Your task to perform on an android device: change your default location settings in chrome Image 0: 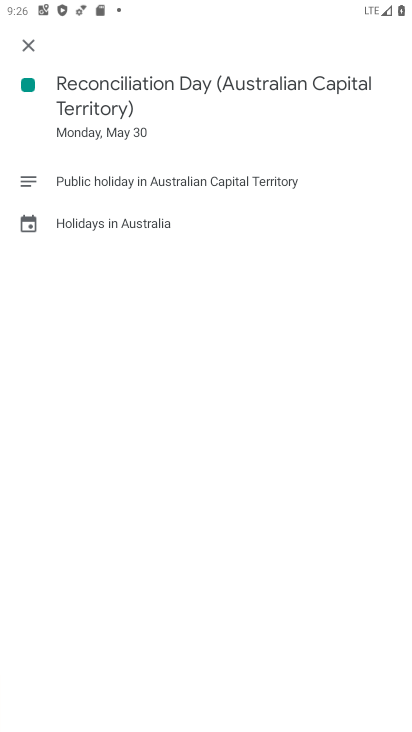
Step 0: press back button
Your task to perform on an android device: change your default location settings in chrome Image 1: 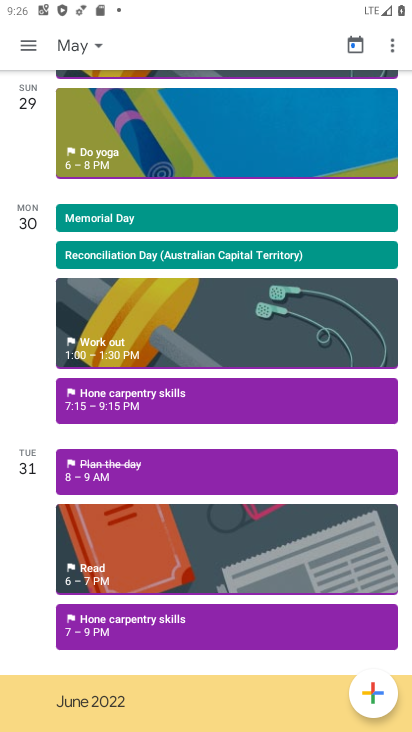
Step 1: press back button
Your task to perform on an android device: change your default location settings in chrome Image 2: 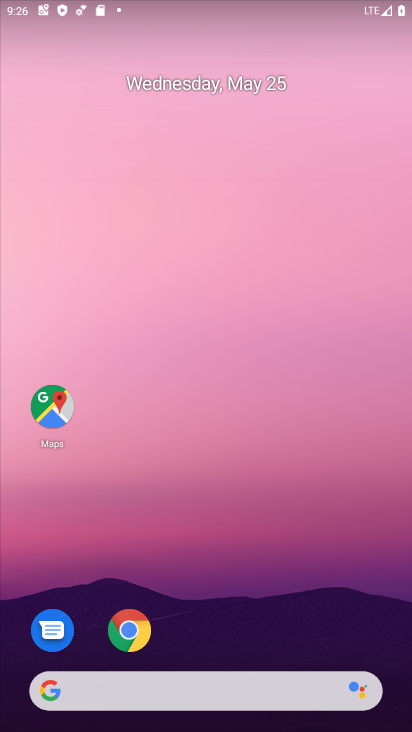
Step 2: click (129, 639)
Your task to perform on an android device: change your default location settings in chrome Image 3: 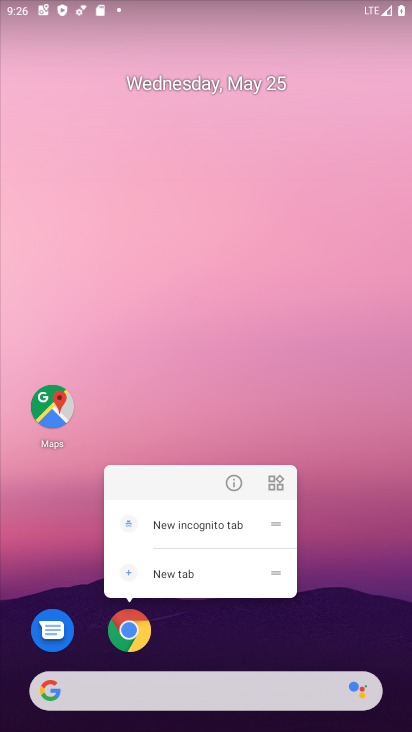
Step 3: click (126, 638)
Your task to perform on an android device: change your default location settings in chrome Image 4: 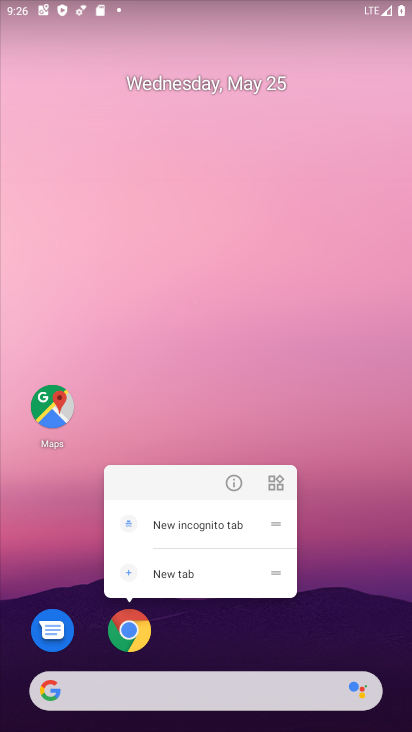
Step 4: click (129, 625)
Your task to perform on an android device: change your default location settings in chrome Image 5: 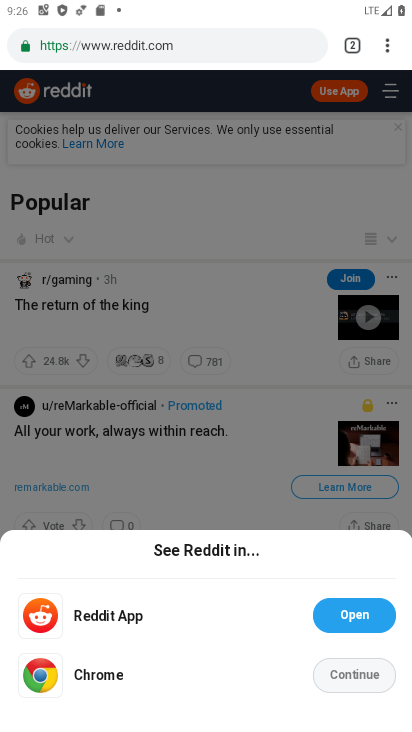
Step 5: drag from (389, 48) to (243, 510)
Your task to perform on an android device: change your default location settings in chrome Image 6: 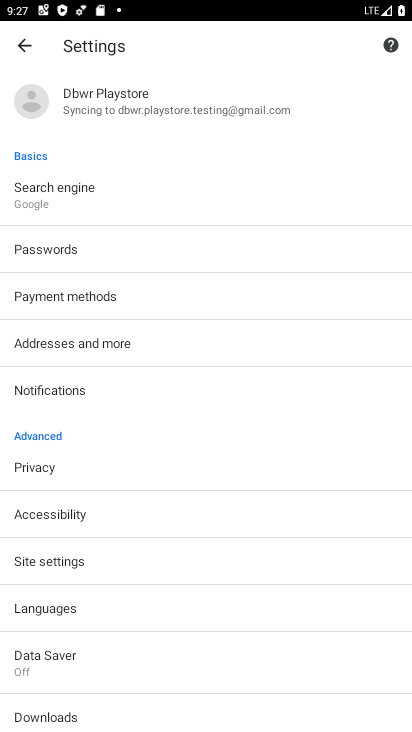
Step 6: click (67, 558)
Your task to perform on an android device: change your default location settings in chrome Image 7: 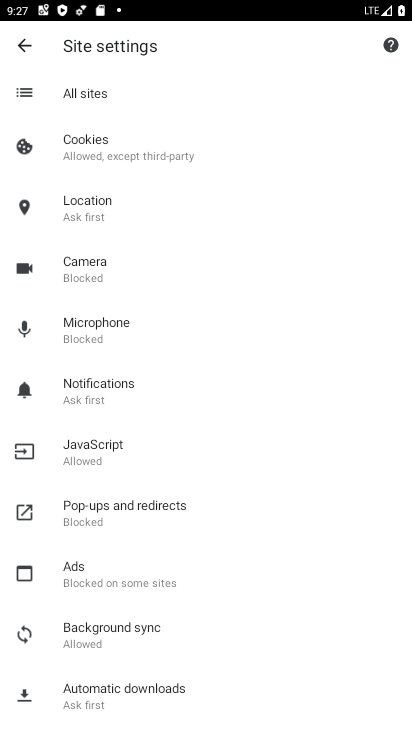
Step 7: click (109, 199)
Your task to perform on an android device: change your default location settings in chrome Image 8: 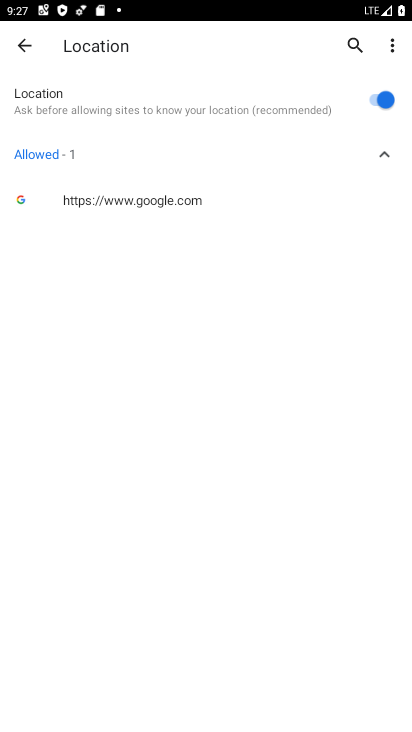
Step 8: click (203, 201)
Your task to perform on an android device: change your default location settings in chrome Image 9: 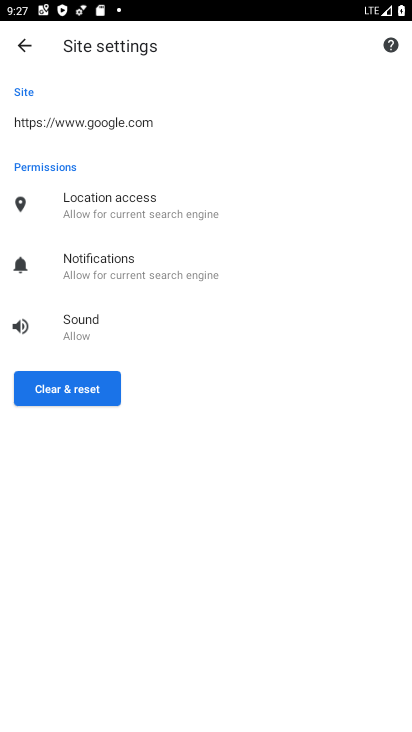
Step 9: click (124, 204)
Your task to perform on an android device: change your default location settings in chrome Image 10: 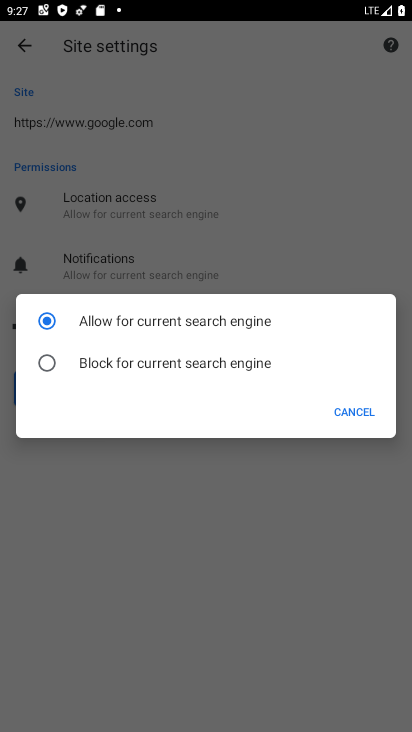
Step 10: click (88, 361)
Your task to perform on an android device: change your default location settings in chrome Image 11: 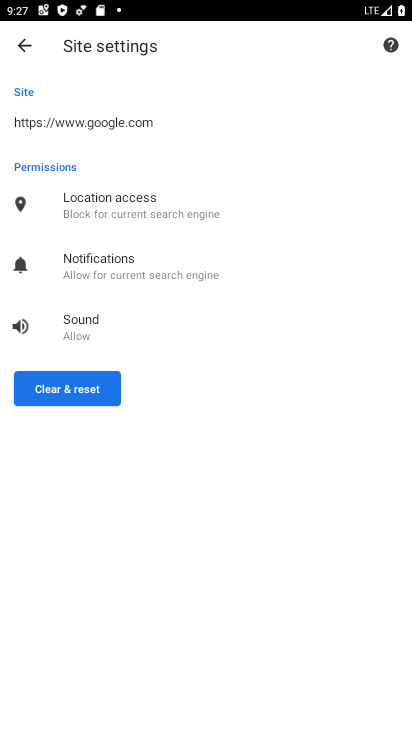
Step 11: task complete